Your task to perform on an android device: see tabs open on other devices in the chrome app Image 0: 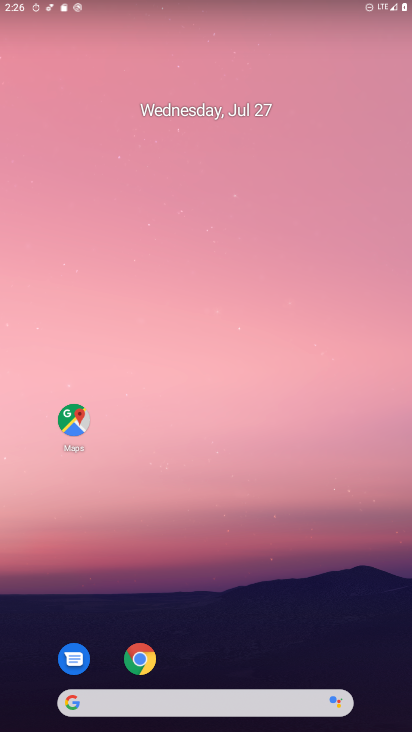
Step 0: drag from (267, 562) to (160, 45)
Your task to perform on an android device: see tabs open on other devices in the chrome app Image 1: 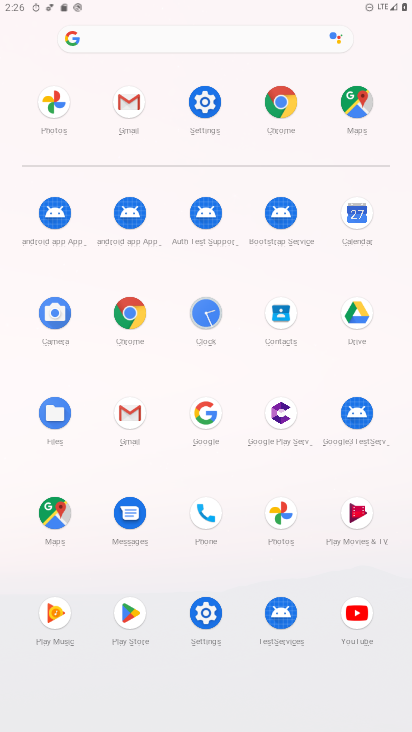
Step 1: click (283, 104)
Your task to perform on an android device: see tabs open on other devices in the chrome app Image 2: 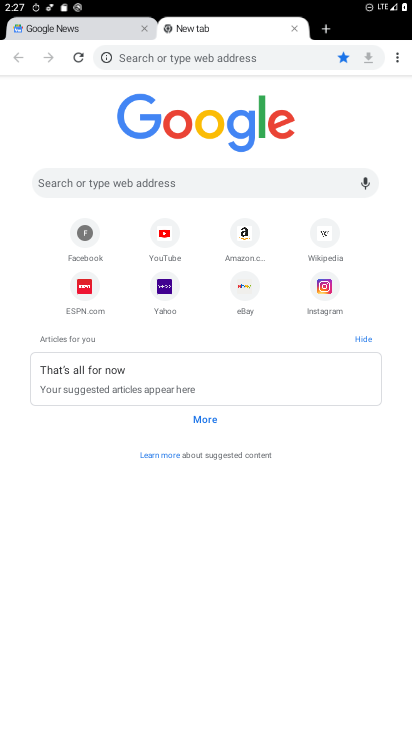
Step 2: task complete